Your task to perform on an android device: check the backup settings in the google photos Image 0: 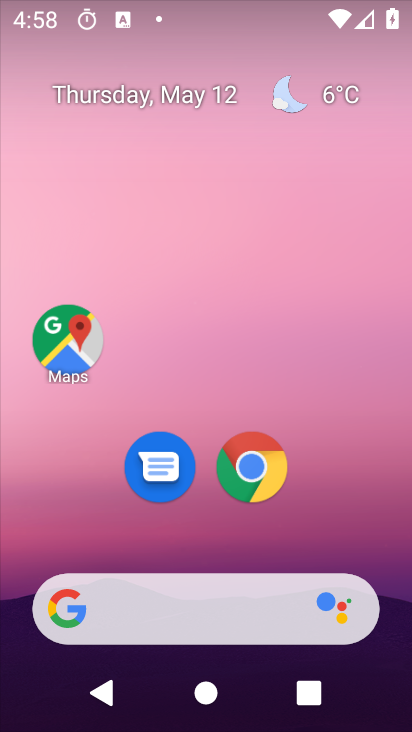
Step 0: drag from (116, 553) to (122, 29)
Your task to perform on an android device: check the backup settings in the google photos Image 1: 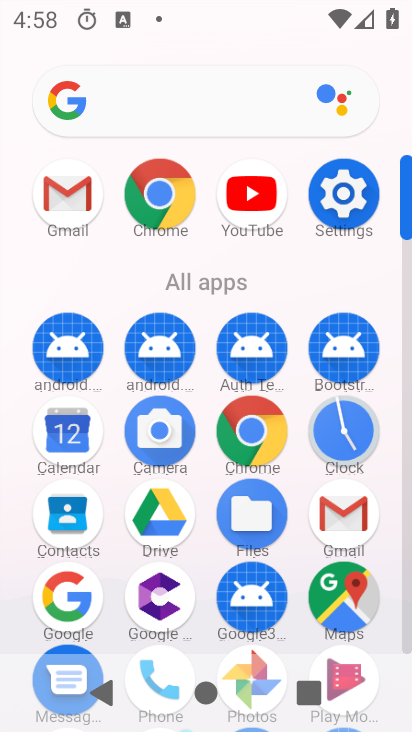
Step 1: drag from (274, 588) to (268, 442)
Your task to perform on an android device: check the backup settings in the google photos Image 2: 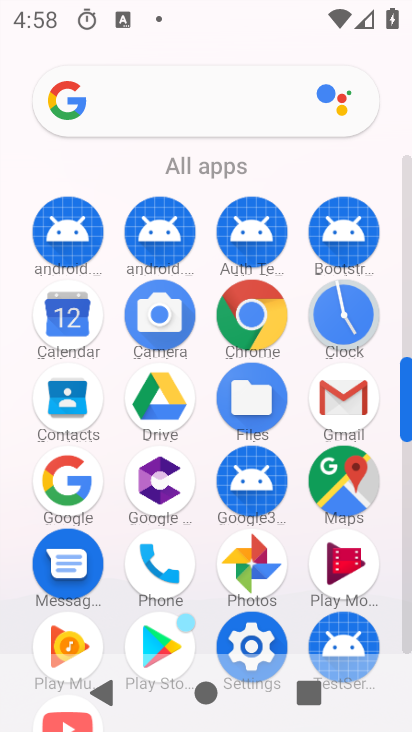
Step 2: click (243, 571)
Your task to perform on an android device: check the backup settings in the google photos Image 3: 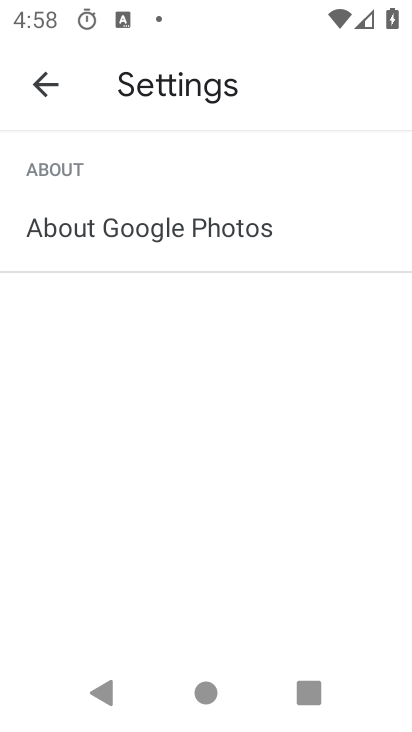
Step 3: task complete